Your task to perform on an android device: toggle sleep mode Image 0: 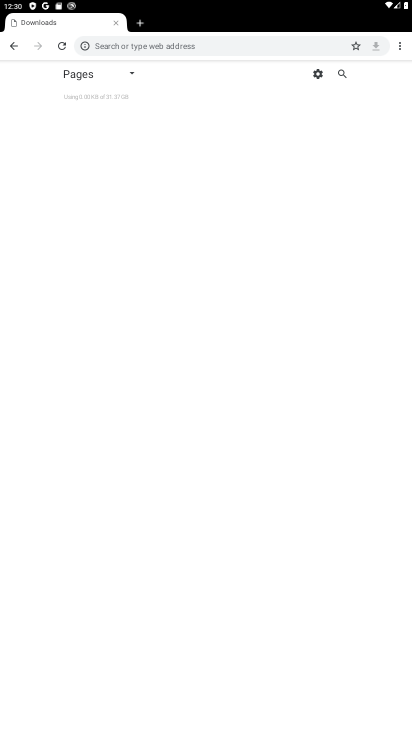
Step 0: press home button
Your task to perform on an android device: toggle sleep mode Image 1: 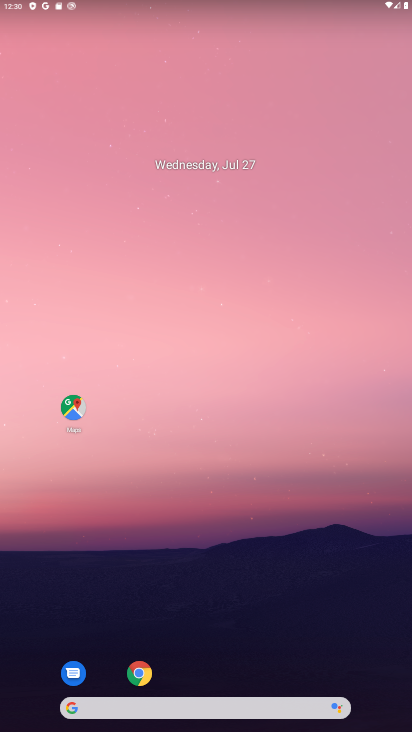
Step 1: drag from (225, 685) to (221, 84)
Your task to perform on an android device: toggle sleep mode Image 2: 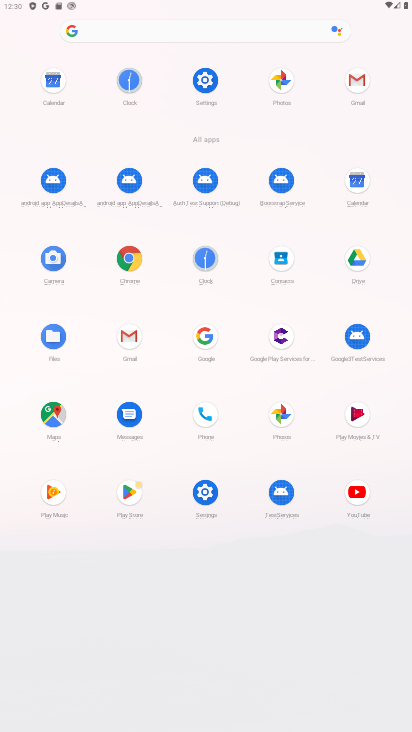
Step 2: click (199, 83)
Your task to perform on an android device: toggle sleep mode Image 3: 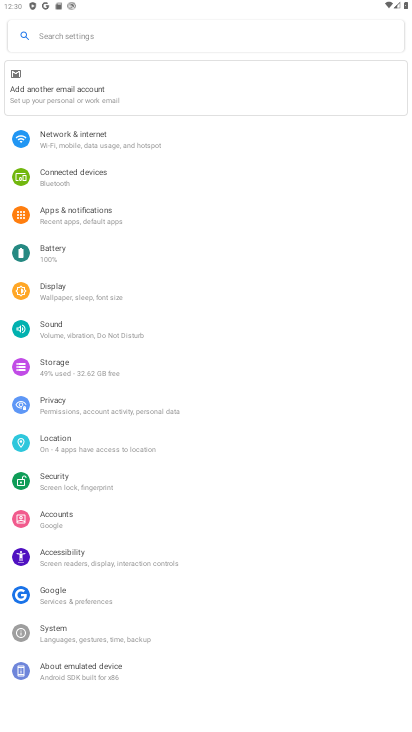
Step 3: click (56, 299)
Your task to perform on an android device: toggle sleep mode Image 4: 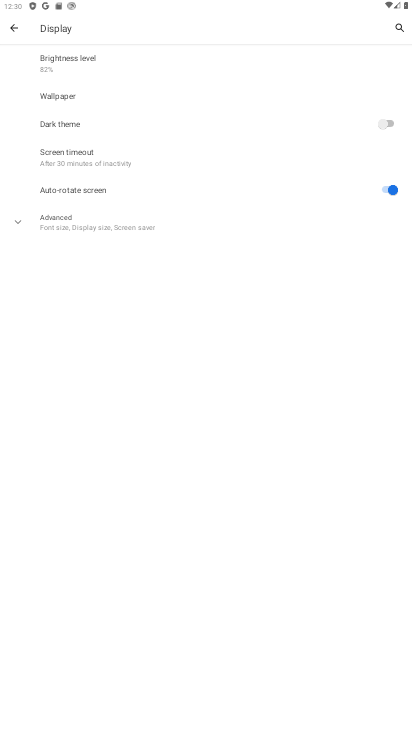
Step 4: click (17, 228)
Your task to perform on an android device: toggle sleep mode Image 5: 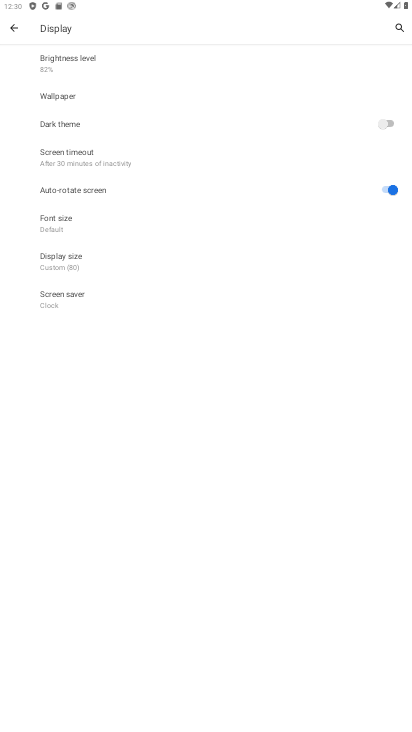
Step 5: task complete